Your task to perform on an android device: Open the calendar app, open the side menu, and click the "Day" option Image 0: 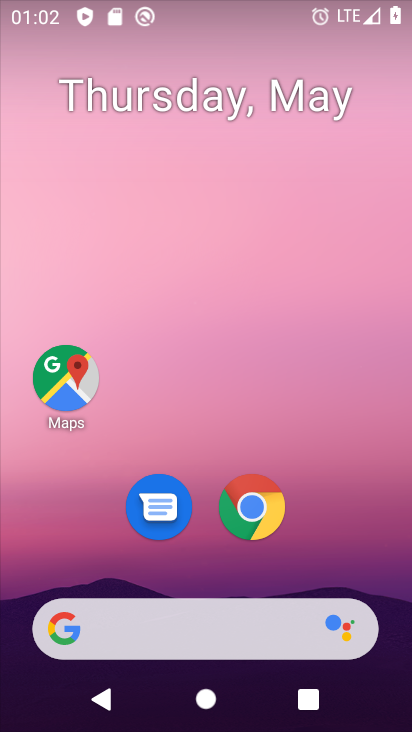
Step 0: drag from (202, 556) to (210, 219)
Your task to perform on an android device: Open the calendar app, open the side menu, and click the "Day" option Image 1: 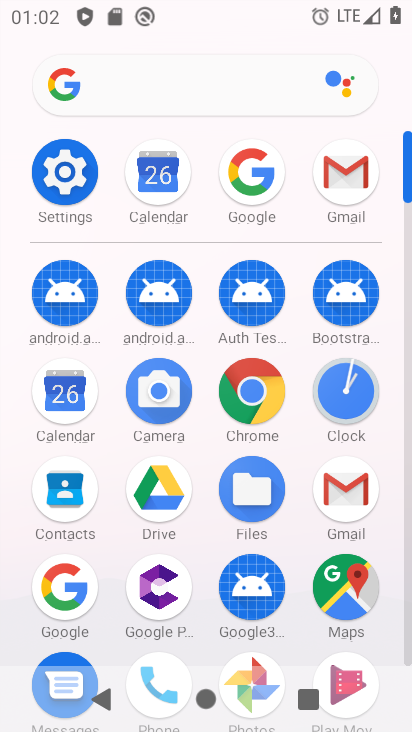
Step 1: click (155, 200)
Your task to perform on an android device: Open the calendar app, open the side menu, and click the "Day" option Image 2: 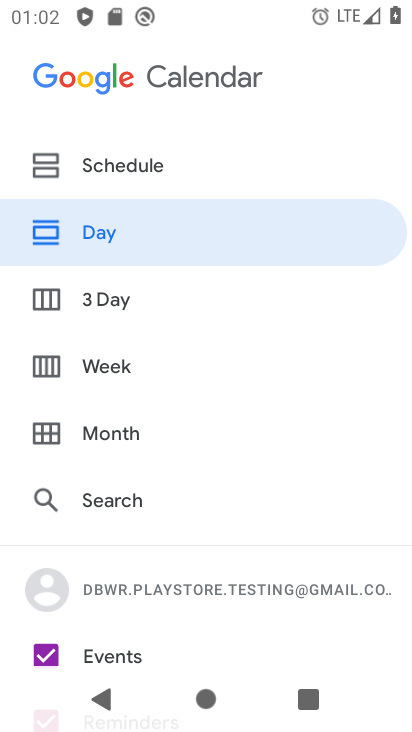
Step 2: click (85, 244)
Your task to perform on an android device: Open the calendar app, open the side menu, and click the "Day" option Image 3: 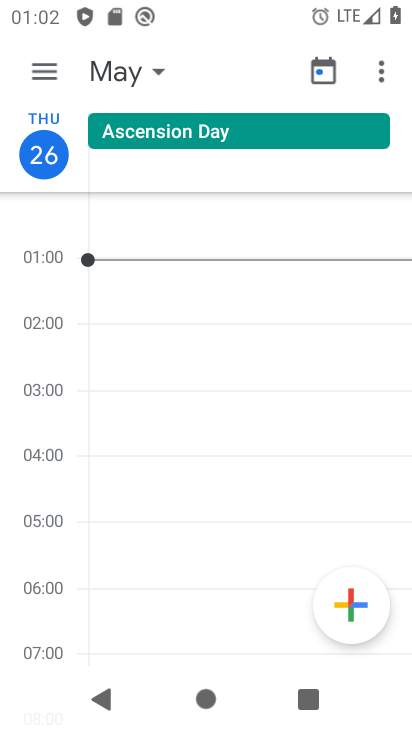
Step 3: task complete